Your task to perform on an android device: uninstall "Chime – Mobile Banking" Image 0: 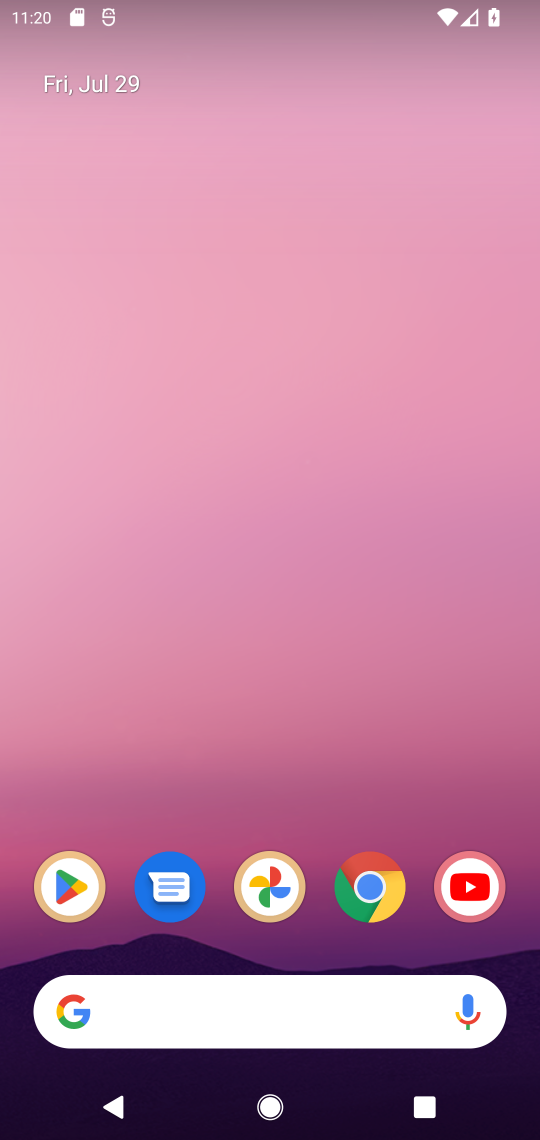
Step 0: drag from (199, 1017) to (339, 129)
Your task to perform on an android device: uninstall "Chime – Mobile Banking" Image 1: 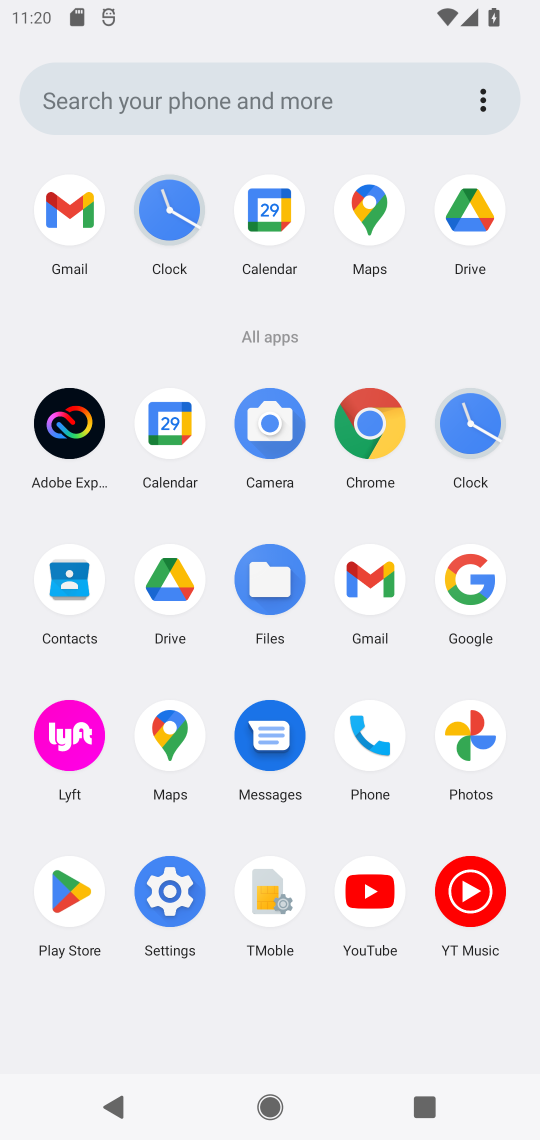
Step 1: click (67, 895)
Your task to perform on an android device: uninstall "Chime – Mobile Banking" Image 2: 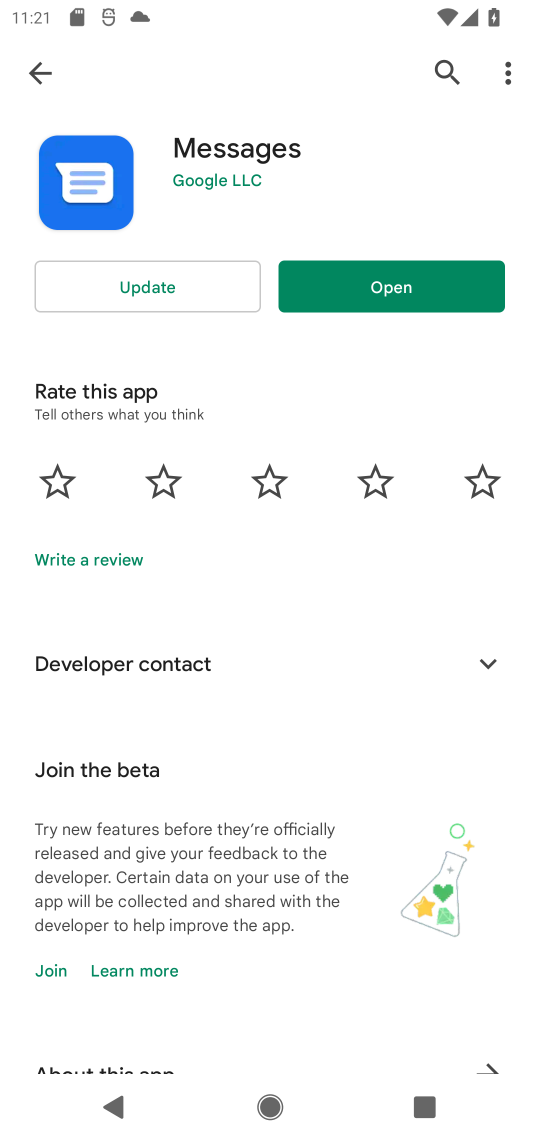
Step 2: click (446, 66)
Your task to perform on an android device: uninstall "Chime – Mobile Banking" Image 3: 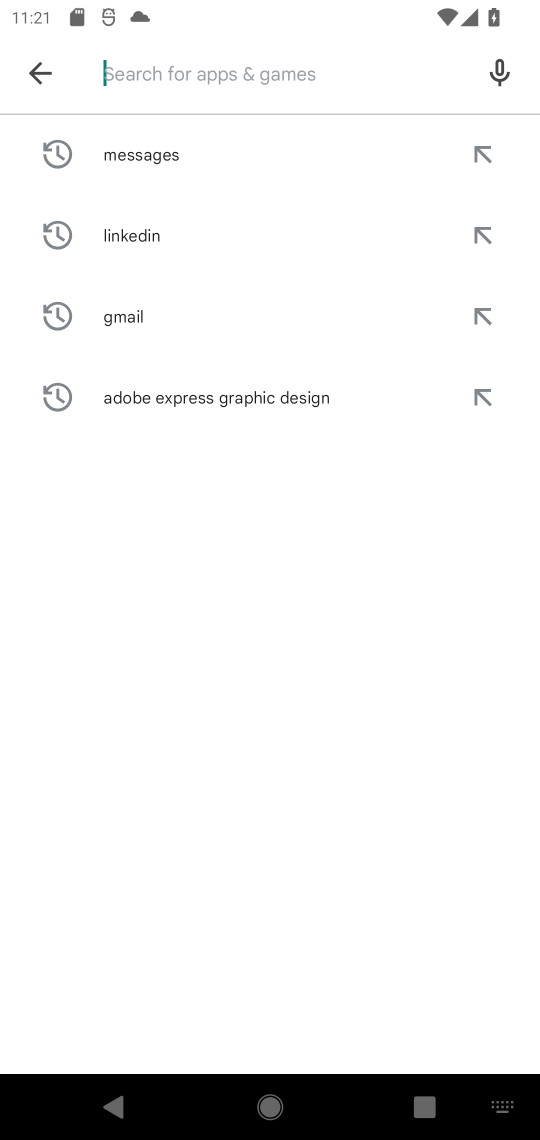
Step 3: click (244, 69)
Your task to perform on an android device: uninstall "Chime – Mobile Banking" Image 4: 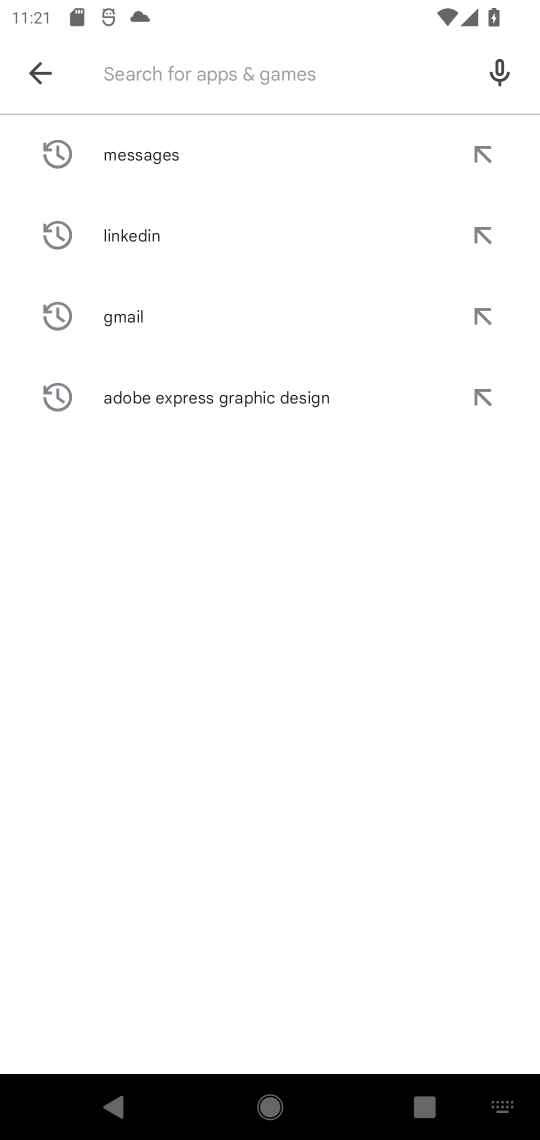
Step 4: type "Chime - Mobile Banking"
Your task to perform on an android device: uninstall "Chime – Mobile Banking" Image 5: 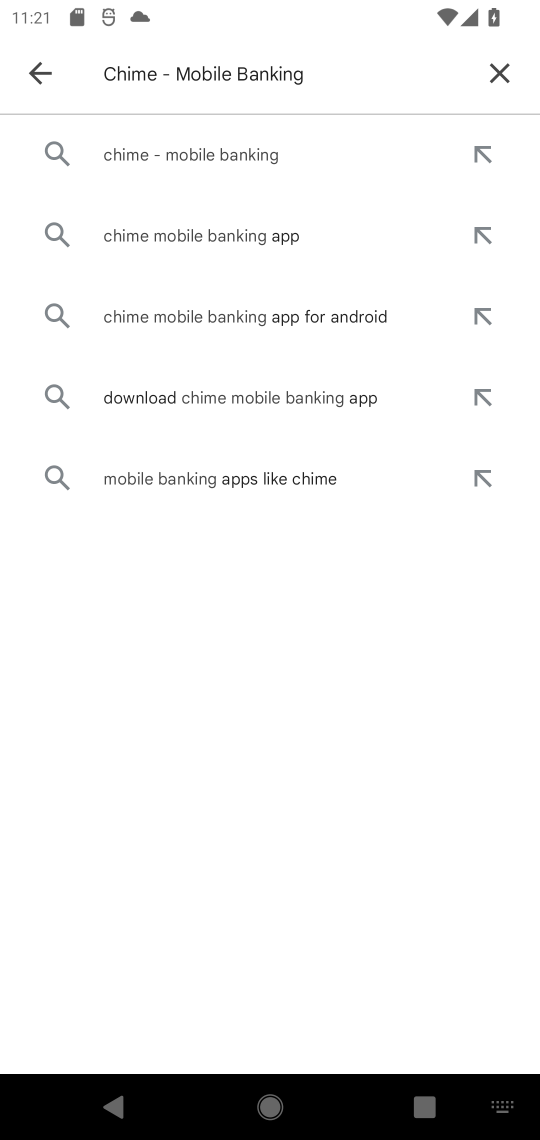
Step 5: click (195, 151)
Your task to perform on an android device: uninstall "Chime – Mobile Banking" Image 6: 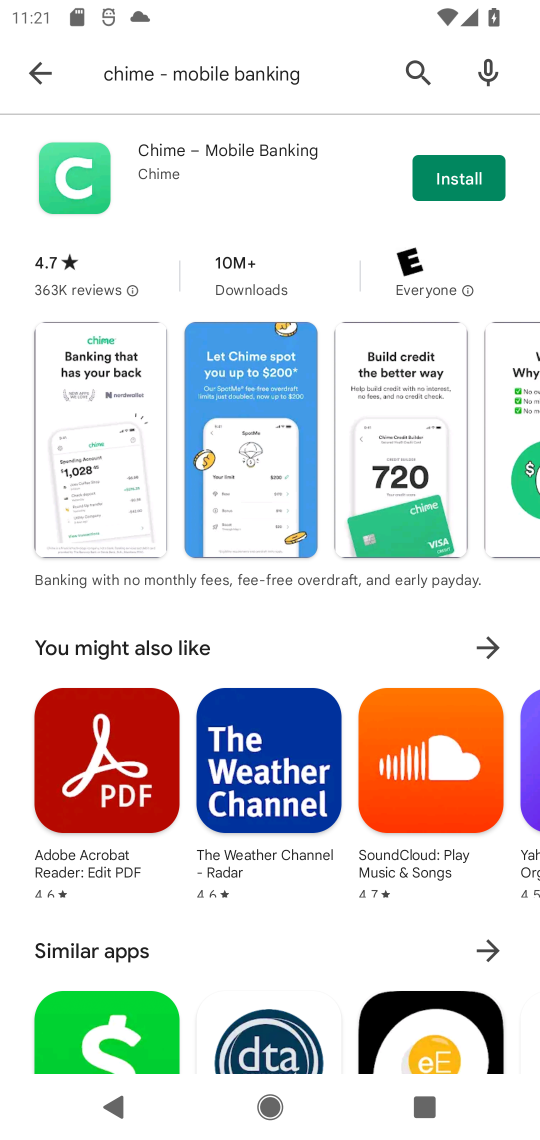
Step 6: task complete